Your task to perform on an android device: set default search engine in the chrome app Image 0: 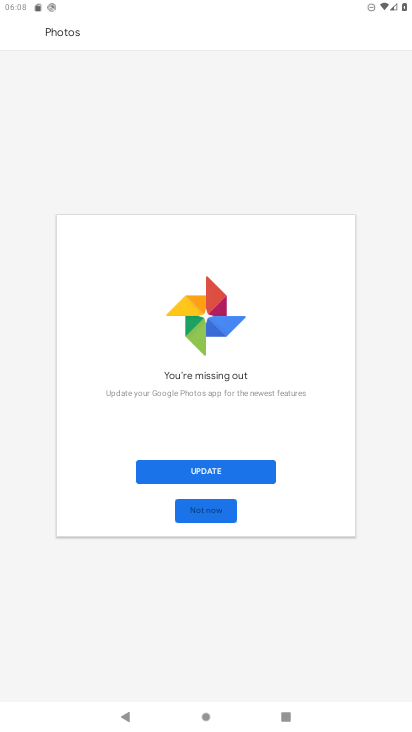
Step 0: press home button
Your task to perform on an android device: set default search engine in the chrome app Image 1: 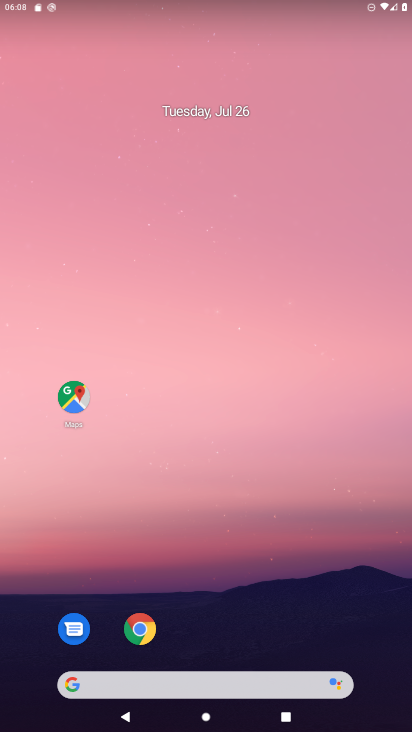
Step 1: click (131, 633)
Your task to perform on an android device: set default search engine in the chrome app Image 2: 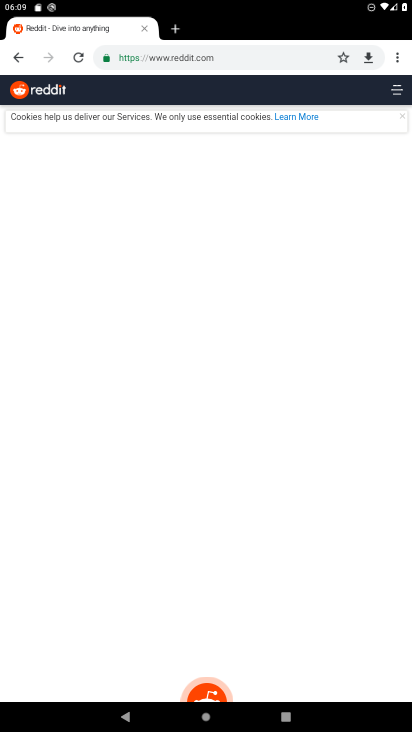
Step 2: click (397, 59)
Your task to perform on an android device: set default search engine in the chrome app Image 3: 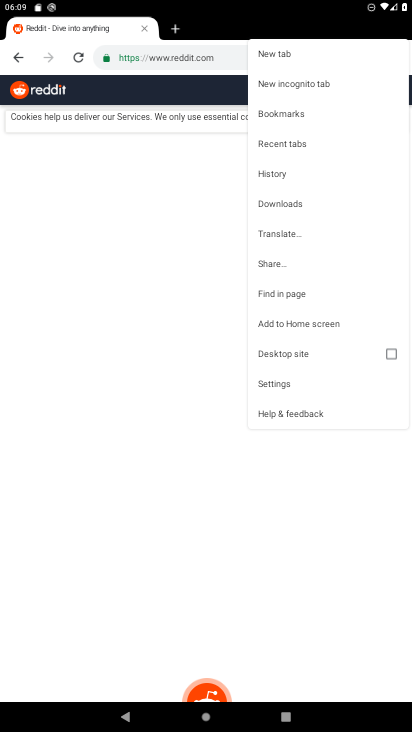
Step 3: click (275, 383)
Your task to perform on an android device: set default search engine in the chrome app Image 4: 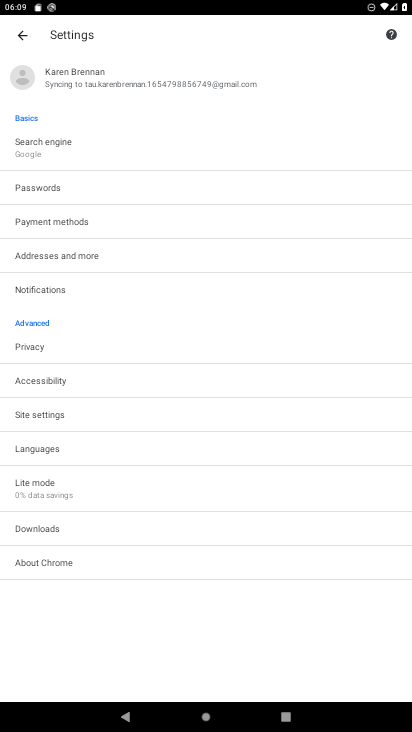
Step 4: click (47, 153)
Your task to perform on an android device: set default search engine in the chrome app Image 5: 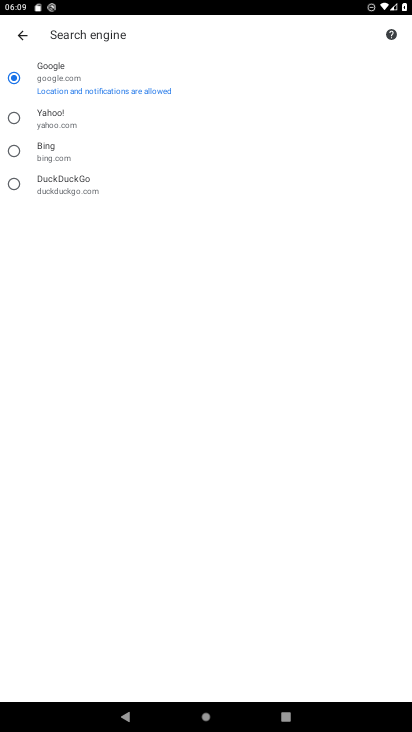
Step 5: click (14, 147)
Your task to perform on an android device: set default search engine in the chrome app Image 6: 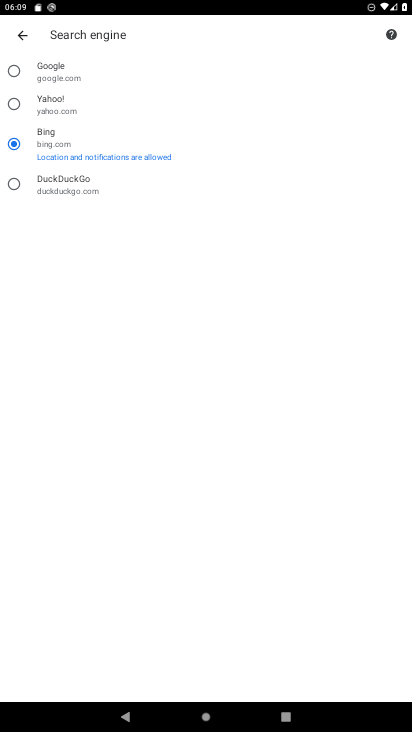
Step 6: task complete